Your task to perform on an android device: see sites visited before in the chrome app Image 0: 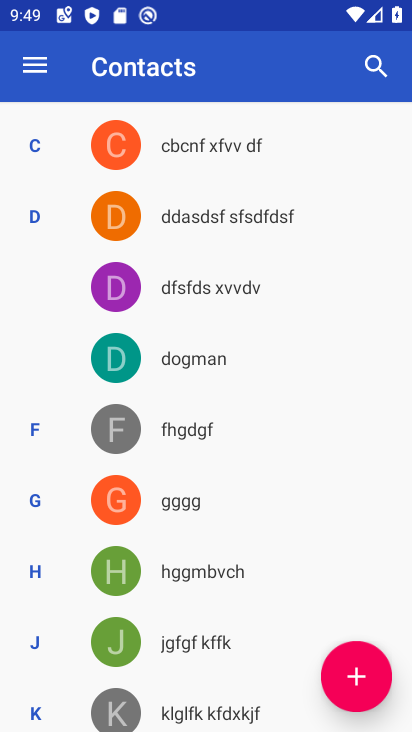
Step 0: press home button
Your task to perform on an android device: see sites visited before in the chrome app Image 1: 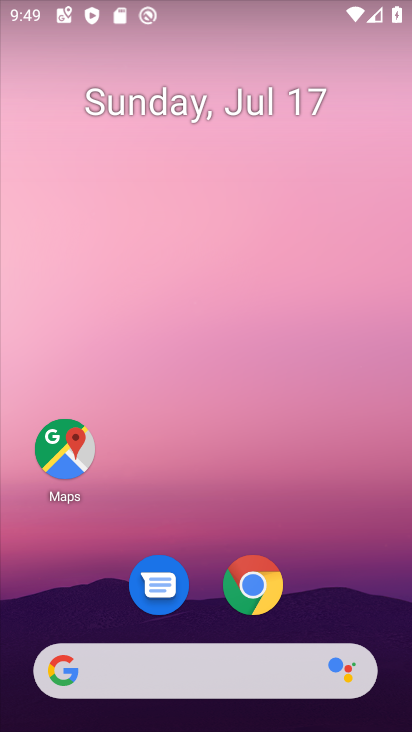
Step 1: click (257, 582)
Your task to perform on an android device: see sites visited before in the chrome app Image 2: 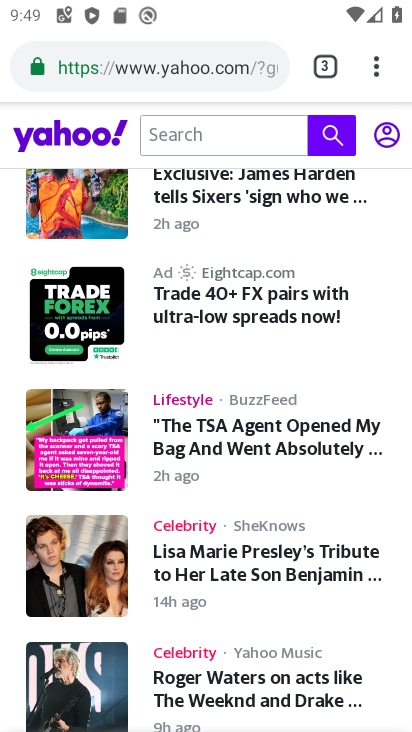
Step 2: click (371, 64)
Your task to perform on an android device: see sites visited before in the chrome app Image 3: 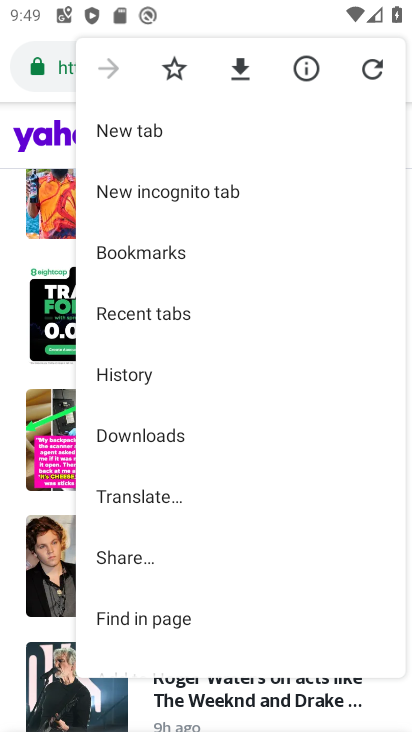
Step 3: click (146, 310)
Your task to perform on an android device: see sites visited before in the chrome app Image 4: 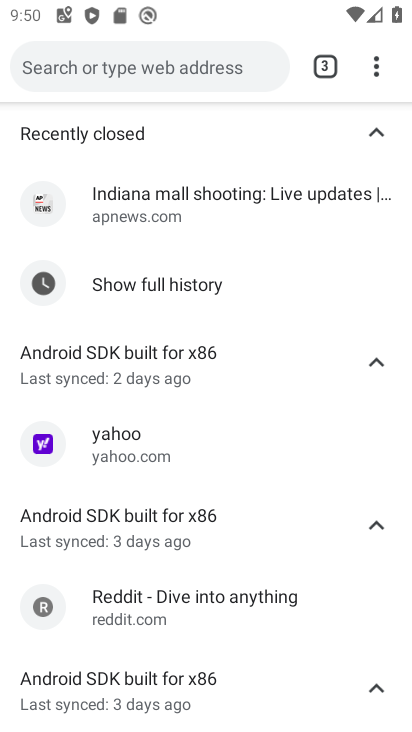
Step 4: task complete